Your task to perform on an android device: Show me recent news Image 0: 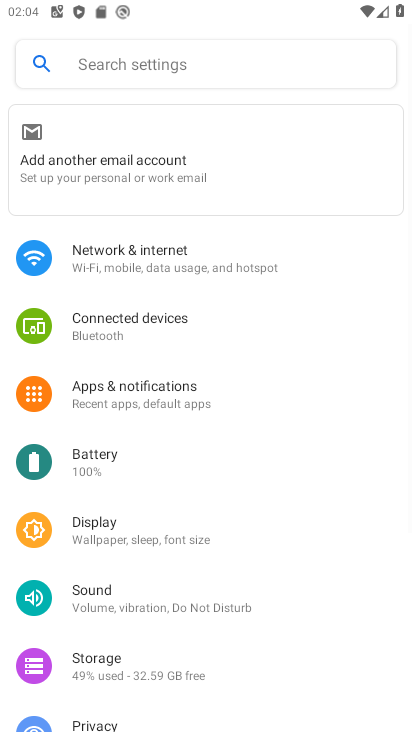
Step 0: press home button
Your task to perform on an android device: Show me recent news Image 1: 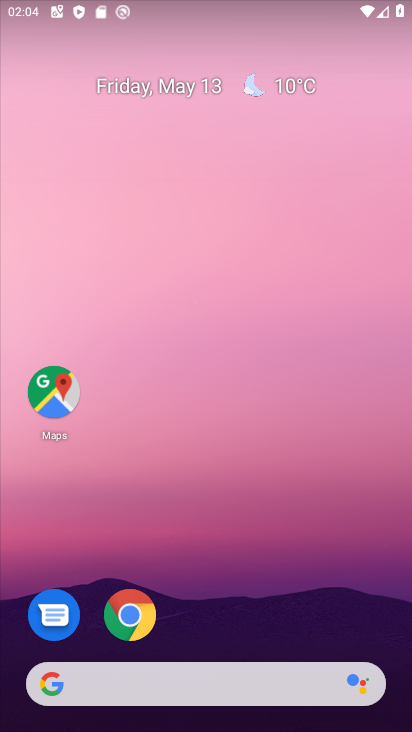
Step 1: click (120, 626)
Your task to perform on an android device: Show me recent news Image 2: 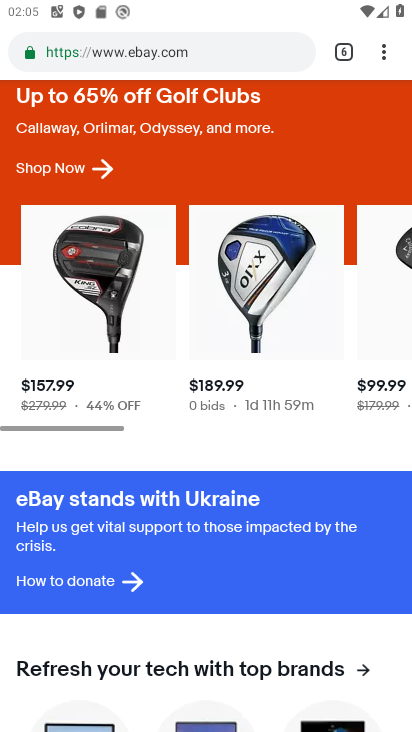
Step 2: click (343, 51)
Your task to perform on an android device: Show me recent news Image 3: 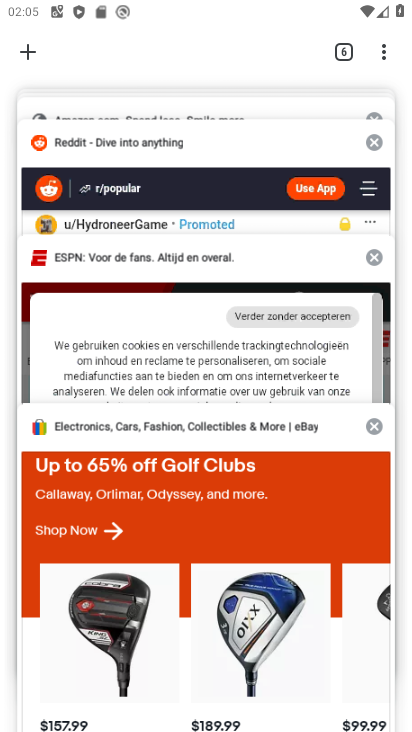
Step 3: drag from (122, 157) to (110, 480)
Your task to perform on an android device: Show me recent news Image 4: 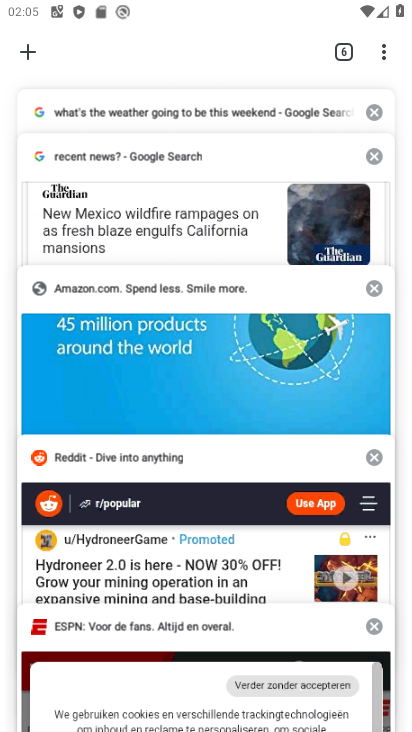
Step 4: click (127, 190)
Your task to perform on an android device: Show me recent news Image 5: 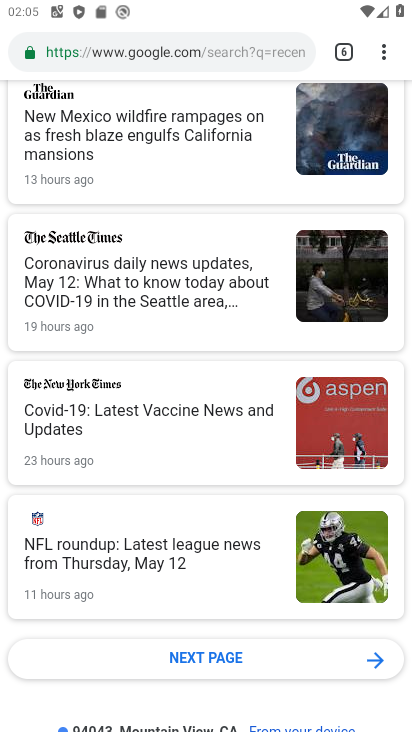
Step 5: task complete